Your task to perform on an android device: toggle notification dots Image 0: 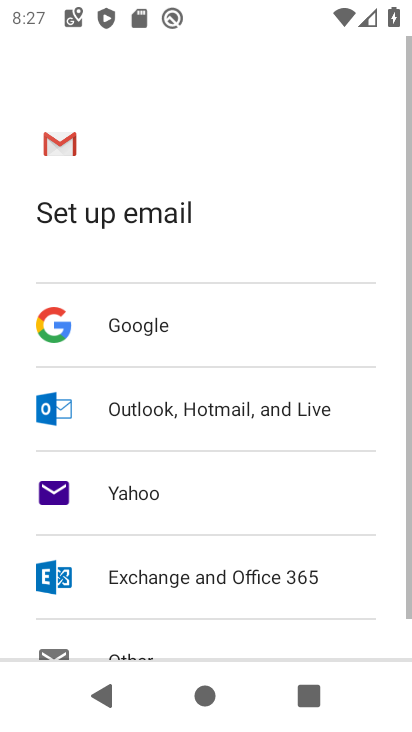
Step 0: press home button
Your task to perform on an android device: toggle notification dots Image 1: 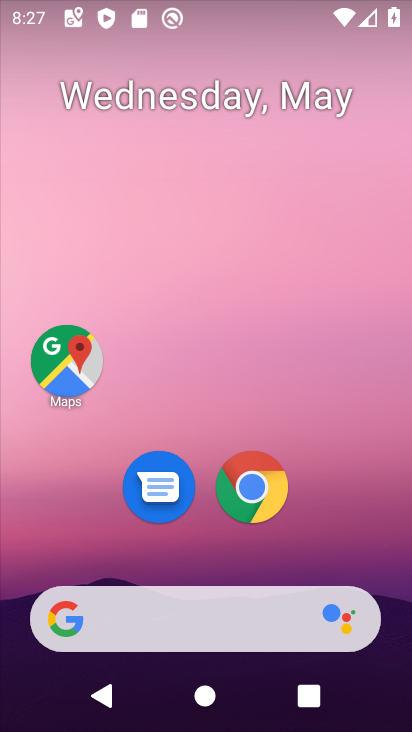
Step 1: drag from (214, 557) to (252, 18)
Your task to perform on an android device: toggle notification dots Image 2: 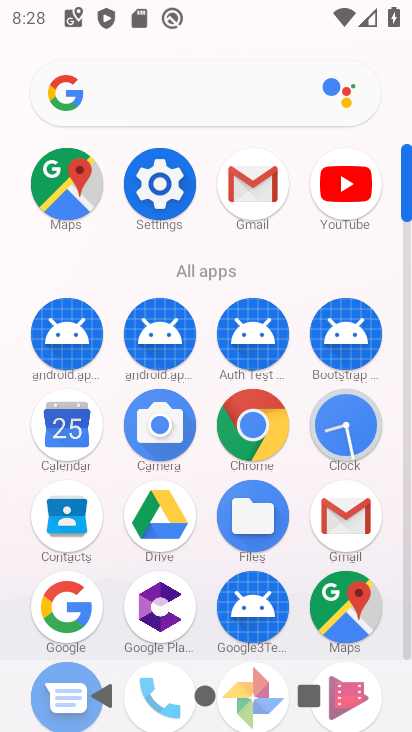
Step 2: click (160, 172)
Your task to perform on an android device: toggle notification dots Image 3: 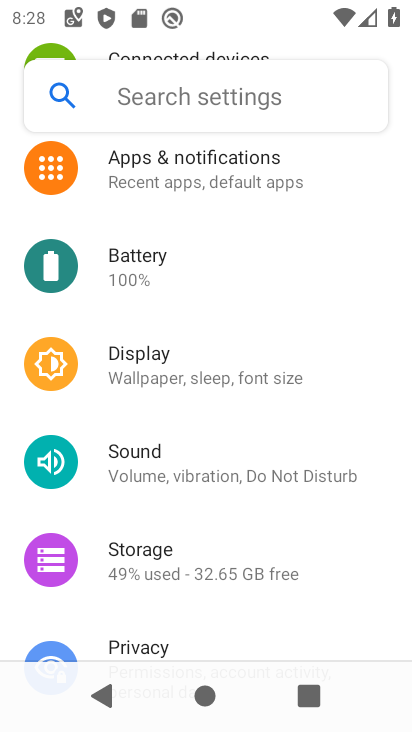
Step 3: click (171, 168)
Your task to perform on an android device: toggle notification dots Image 4: 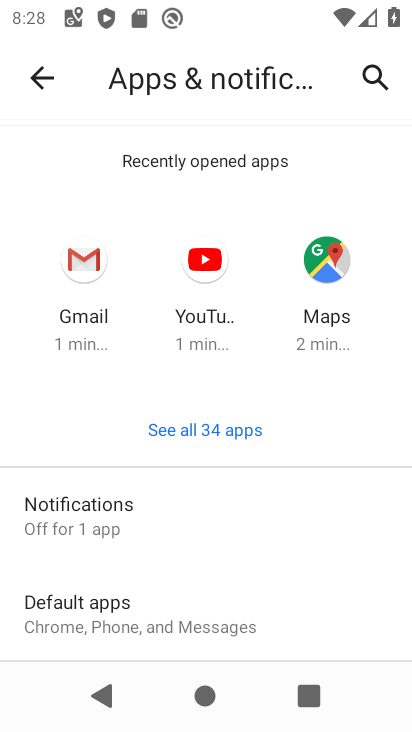
Step 4: click (143, 508)
Your task to perform on an android device: toggle notification dots Image 5: 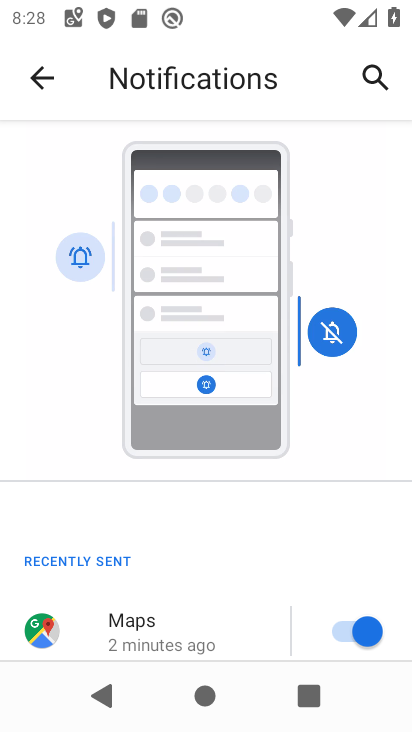
Step 5: drag from (202, 575) to (252, 258)
Your task to perform on an android device: toggle notification dots Image 6: 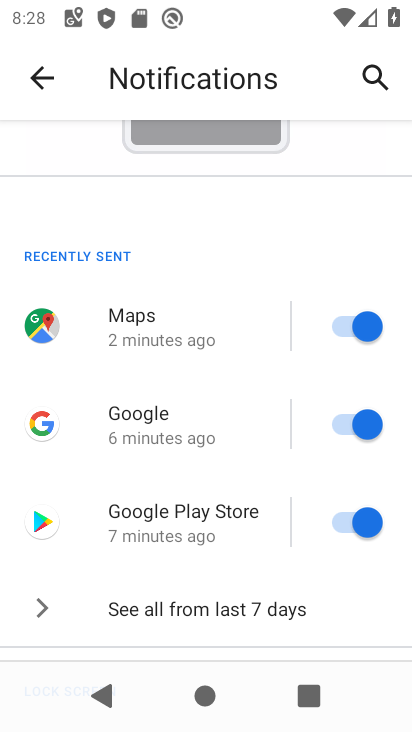
Step 6: drag from (218, 626) to (247, 179)
Your task to perform on an android device: toggle notification dots Image 7: 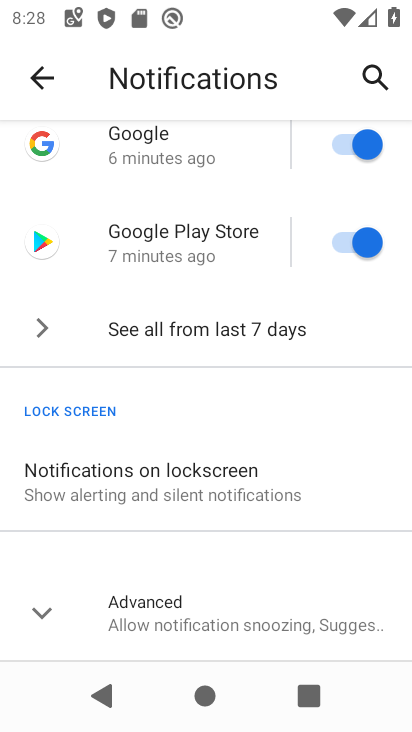
Step 7: click (109, 613)
Your task to perform on an android device: toggle notification dots Image 8: 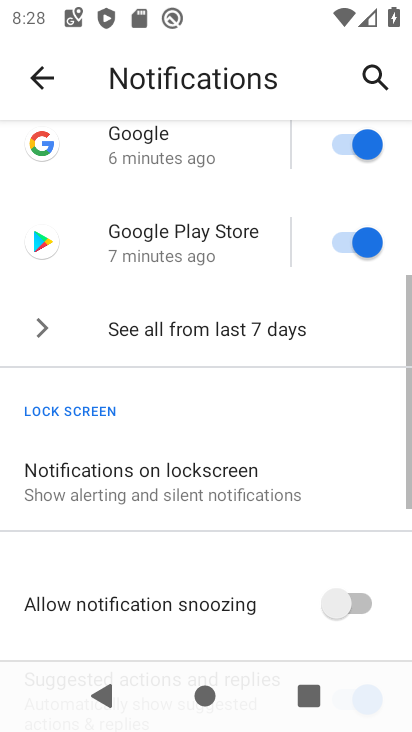
Step 8: drag from (162, 603) to (217, 203)
Your task to perform on an android device: toggle notification dots Image 9: 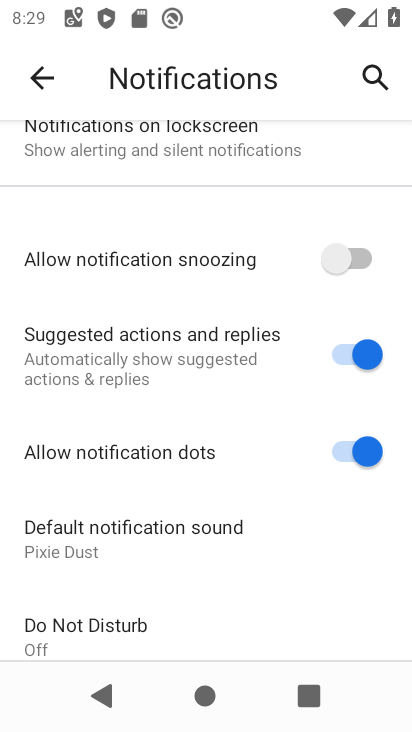
Step 9: click (353, 450)
Your task to perform on an android device: toggle notification dots Image 10: 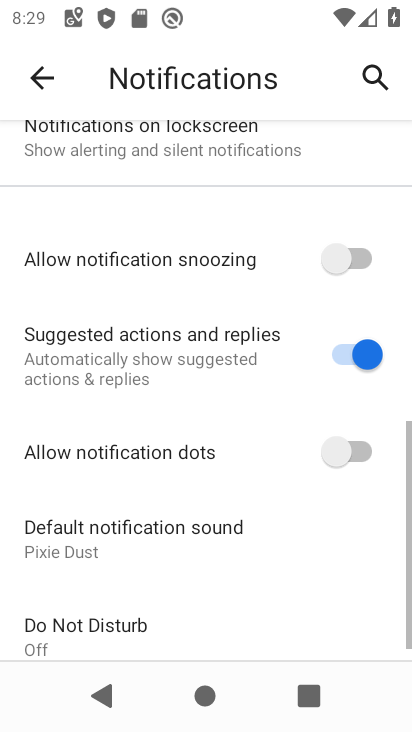
Step 10: task complete